Your task to perform on an android device: turn on wifi Image 0: 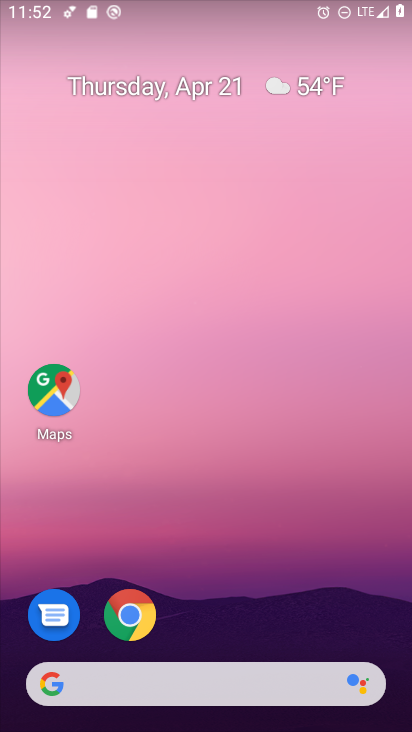
Step 0: drag from (264, 621) to (270, 136)
Your task to perform on an android device: turn on wifi Image 1: 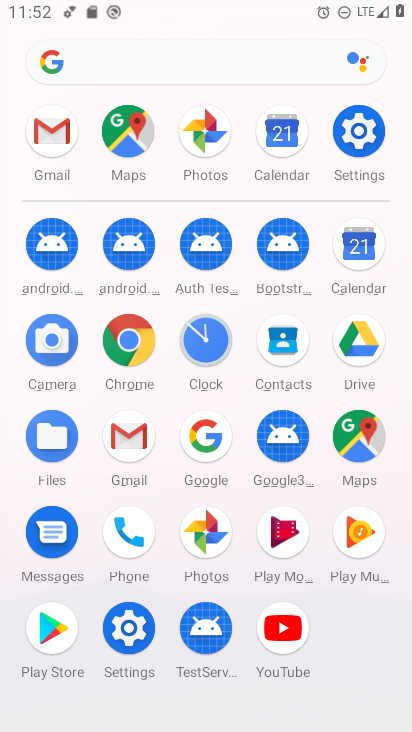
Step 1: click (351, 125)
Your task to perform on an android device: turn on wifi Image 2: 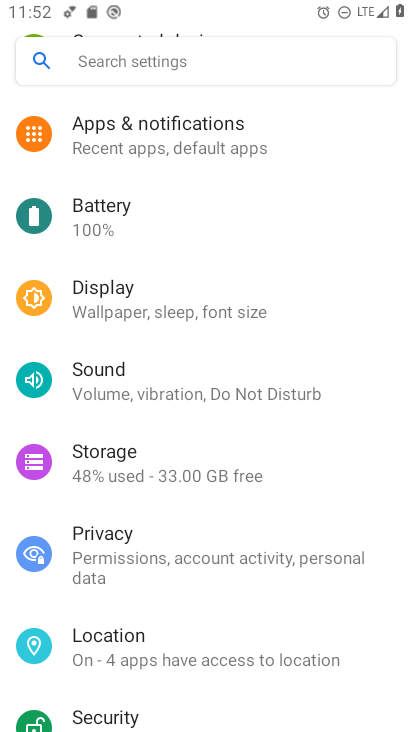
Step 2: drag from (180, 357) to (189, 420)
Your task to perform on an android device: turn on wifi Image 3: 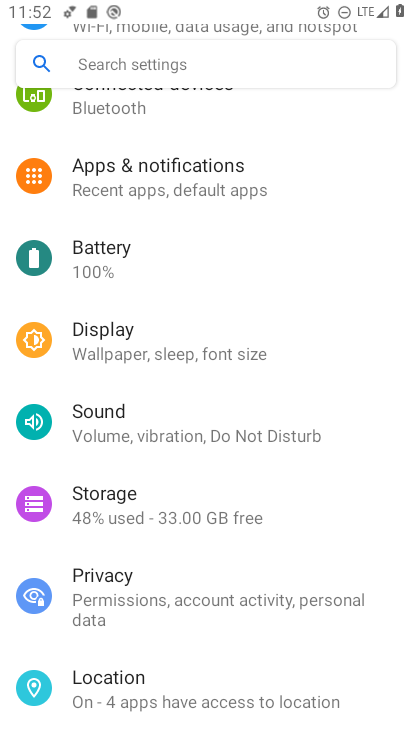
Step 3: drag from (161, 351) to (188, 405)
Your task to perform on an android device: turn on wifi Image 4: 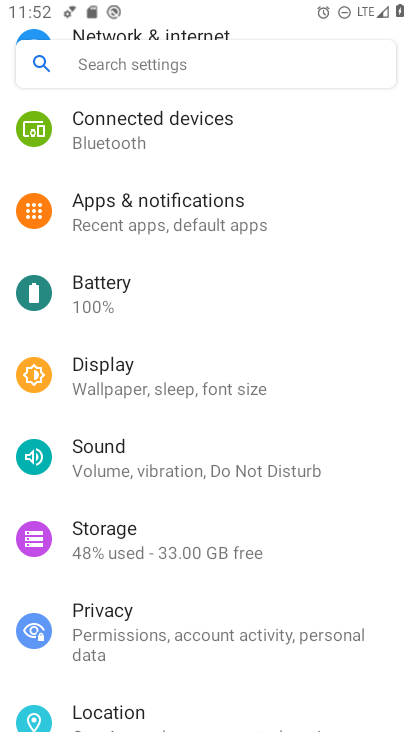
Step 4: drag from (169, 361) to (183, 424)
Your task to perform on an android device: turn on wifi Image 5: 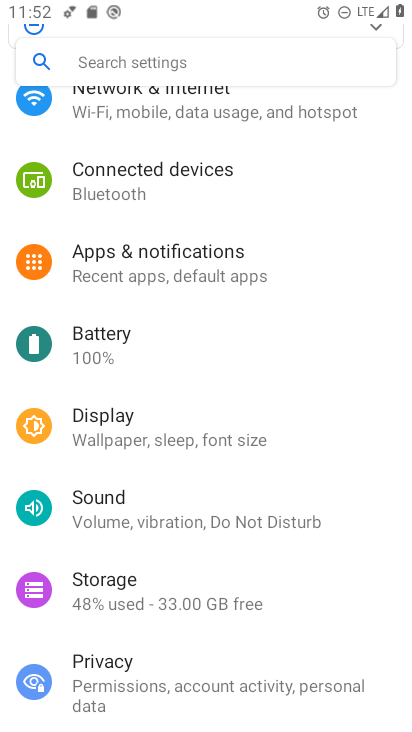
Step 5: drag from (170, 368) to (189, 436)
Your task to perform on an android device: turn on wifi Image 6: 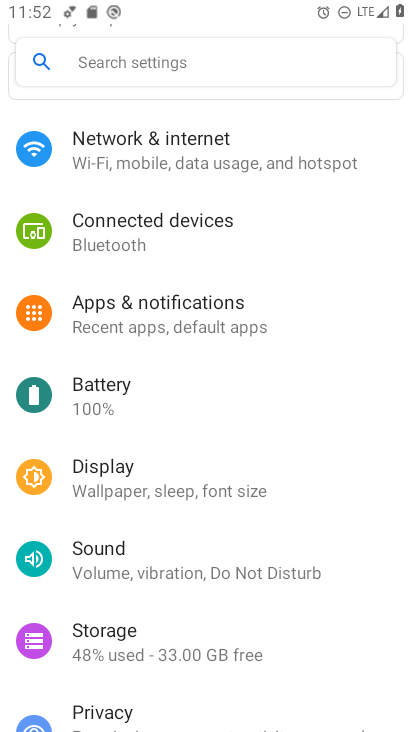
Step 6: drag from (177, 388) to (189, 447)
Your task to perform on an android device: turn on wifi Image 7: 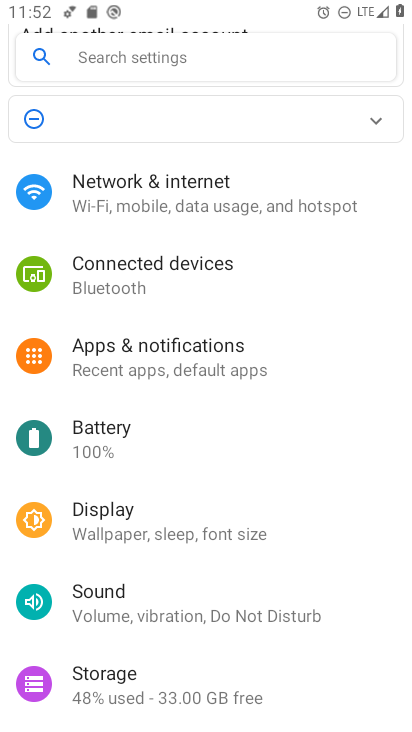
Step 7: click (192, 205)
Your task to perform on an android device: turn on wifi Image 8: 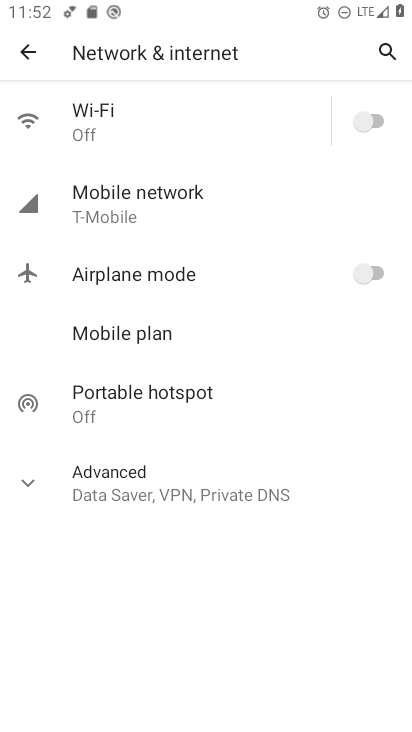
Step 8: click (83, 121)
Your task to perform on an android device: turn on wifi Image 9: 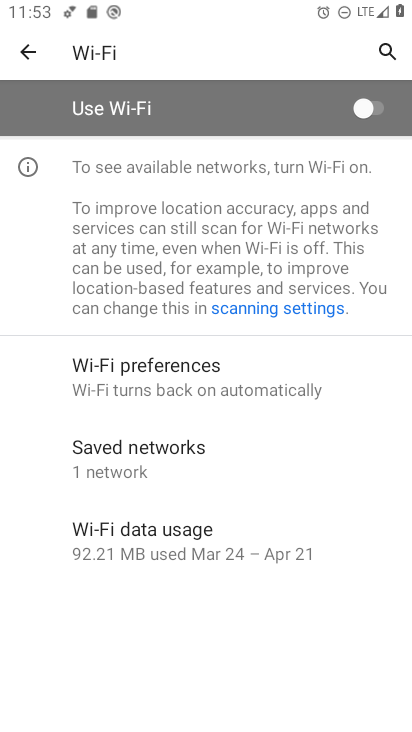
Step 9: click (366, 114)
Your task to perform on an android device: turn on wifi Image 10: 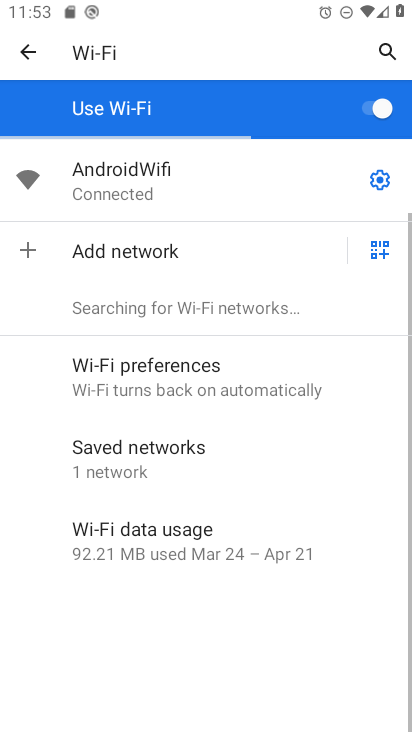
Step 10: task complete